Your task to perform on an android device: Go to calendar. Show me events next week Image 0: 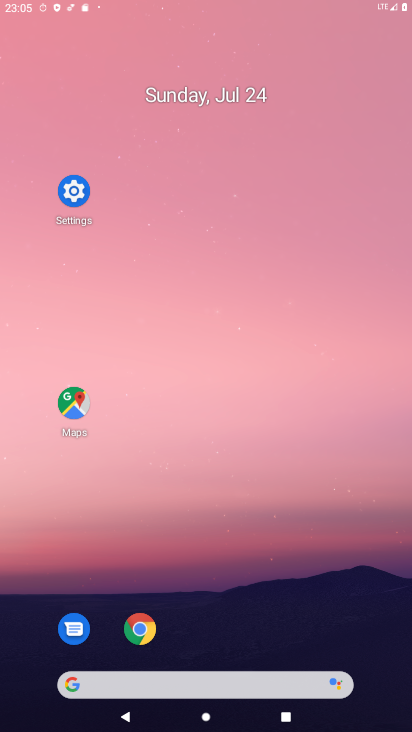
Step 0: click (274, 195)
Your task to perform on an android device: Go to calendar. Show me events next week Image 1: 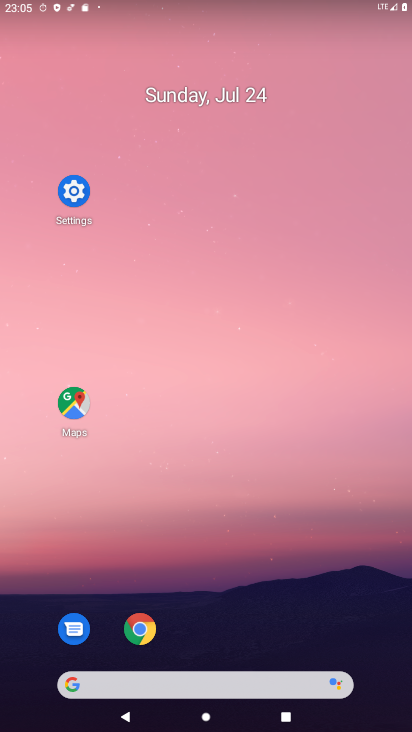
Step 1: drag from (264, 629) to (137, 138)
Your task to perform on an android device: Go to calendar. Show me events next week Image 2: 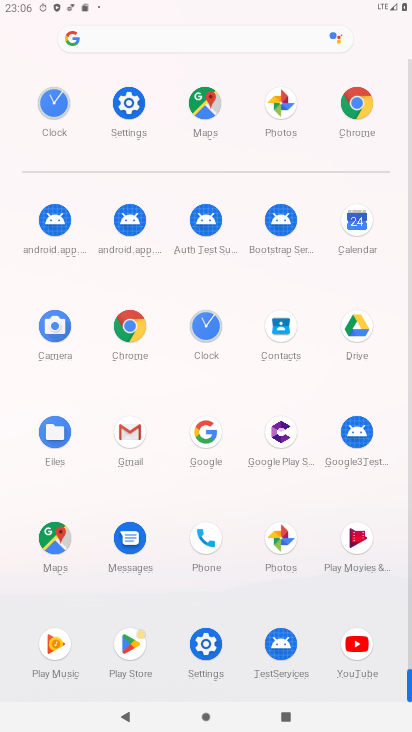
Step 2: click (357, 224)
Your task to perform on an android device: Go to calendar. Show me events next week Image 3: 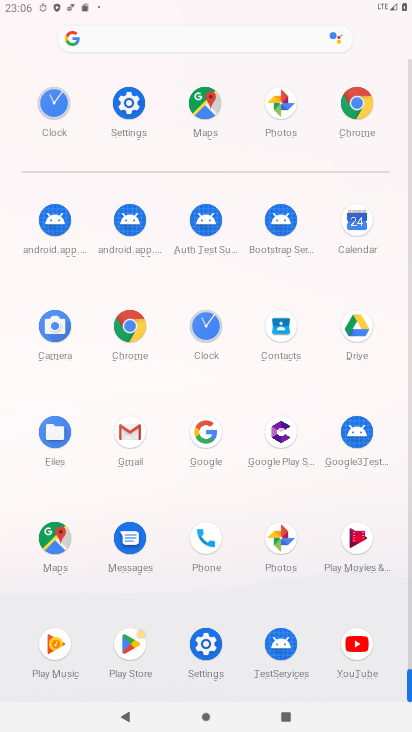
Step 3: click (373, 225)
Your task to perform on an android device: Go to calendar. Show me events next week Image 4: 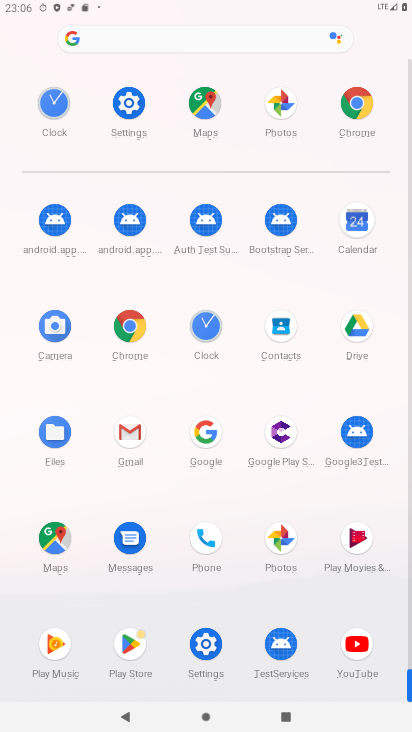
Step 4: click (372, 223)
Your task to perform on an android device: Go to calendar. Show me events next week Image 5: 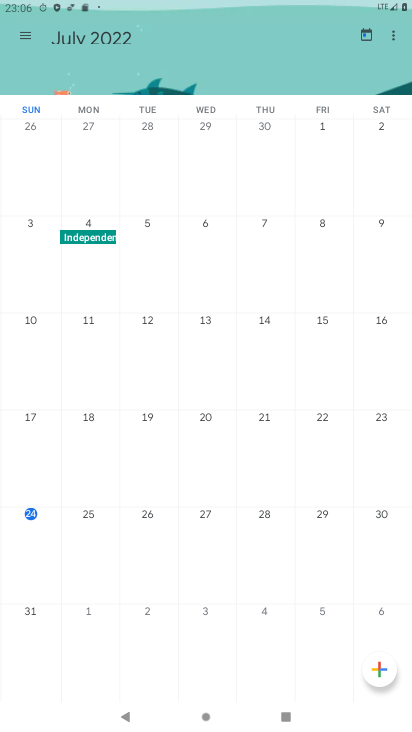
Step 5: drag from (331, 458) to (35, 317)
Your task to perform on an android device: Go to calendar. Show me events next week Image 6: 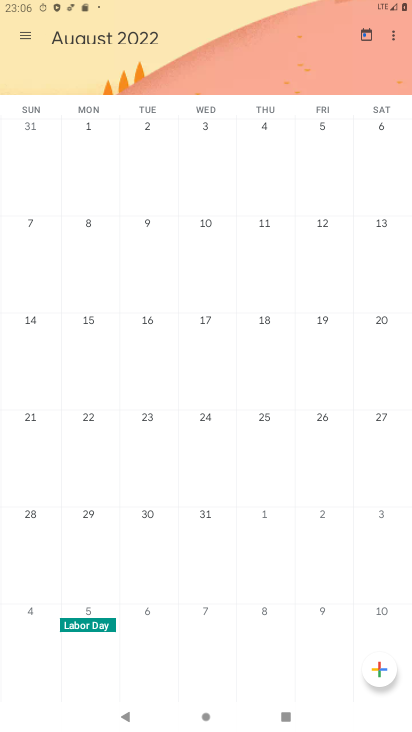
Step 6: click (103, 604)
Your task to perform on an android device: Go to calendar. Show me events next week Image 7: 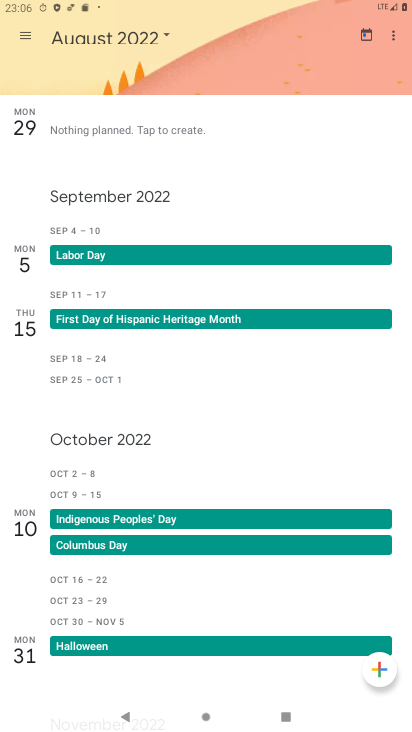
Step 7: click (160, 35)
Your task to perform on an android device: Go to calendar. Show me events next week Image 8: 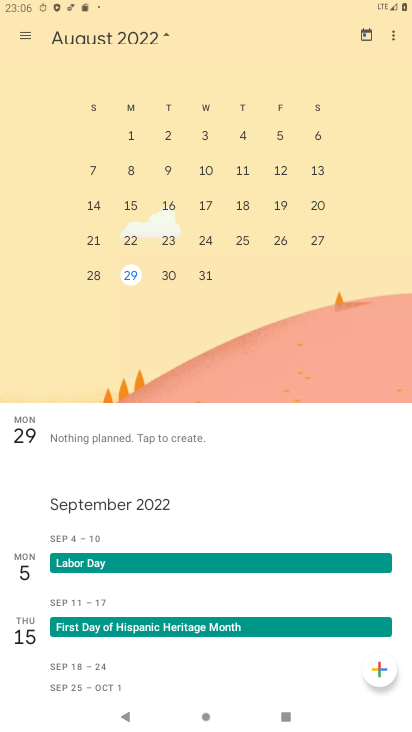
Step 8: click (282, 135)
Your task to perform on an android device: Go to calendar. Show me events next week Image 9: 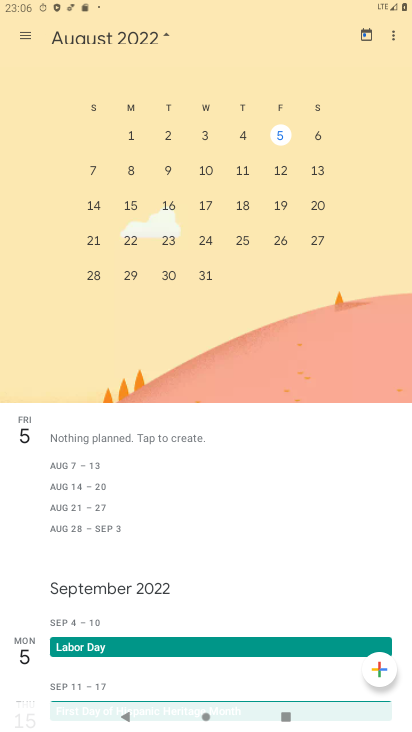
Step 9: click (282, 135)
Your task to perform on an android device: Go to calendar. Show me events next week Image 10: 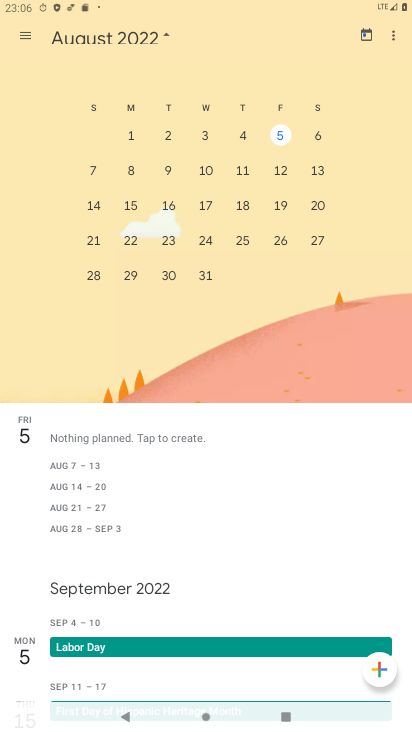
Step 10: task complete